Your task to perform on an android device: Clear all items from cart on target.com. Add "logitech g933" to the cart on target.com Image 0: 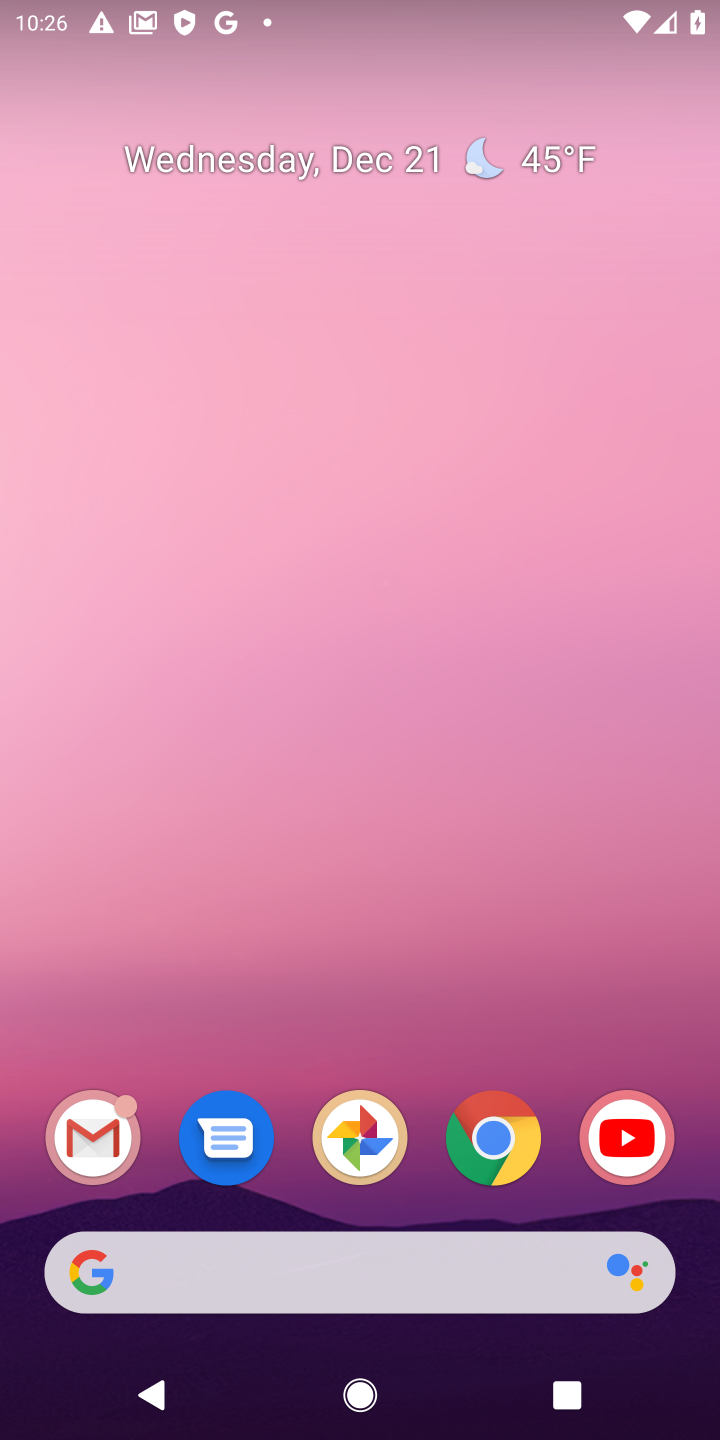
Step 0: click (489, 1151)
Your task to perform on an android device: Clear all items from cart on target.com. Add "logitech g933" to the cart on target.com Image 1: 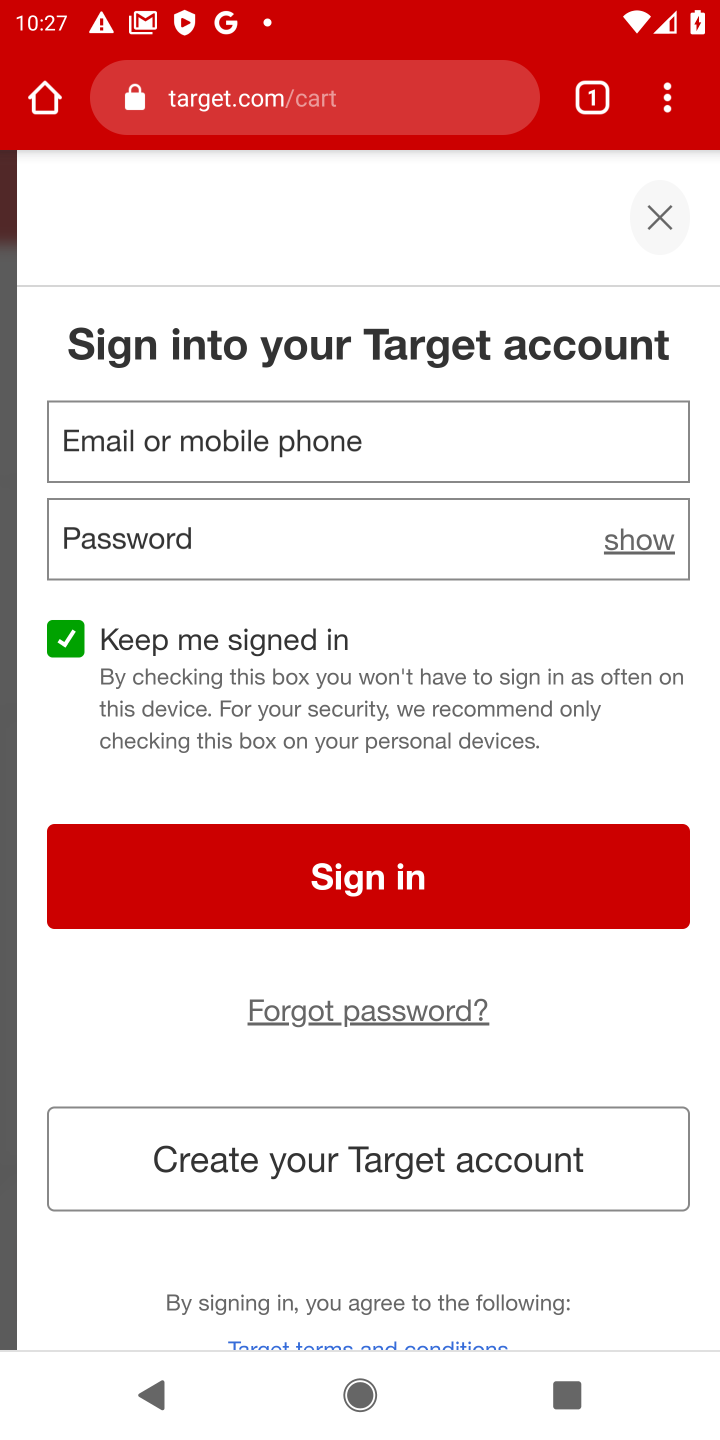
Step 1: press back button
Your task to perform on an android device: Clear all items from cart on target.com. Add "logitech g933" to the cart on target.com Image 2: 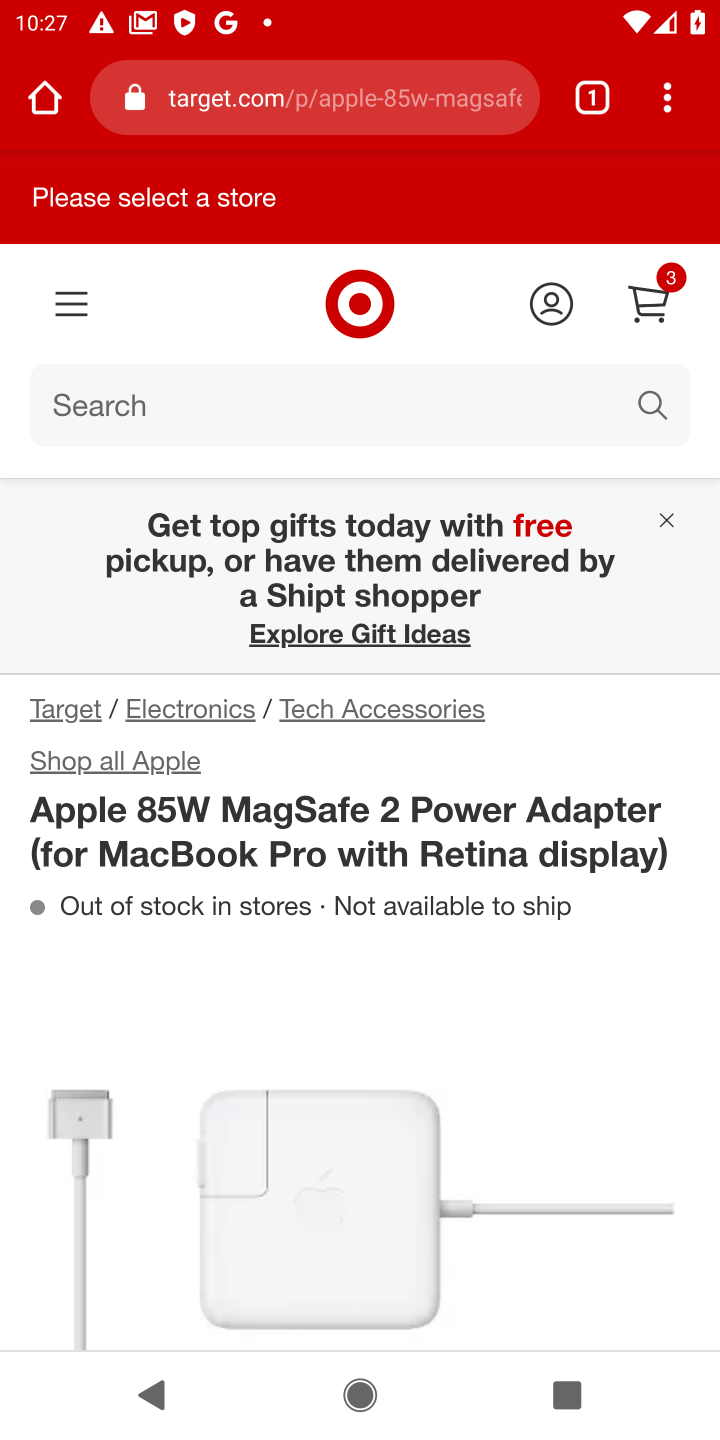
Step 2: click (645, 306)
Your task to perform on an android device: Clear all items from cart on target.com. Add "logitech g933" to the cart on target.com Image 3: 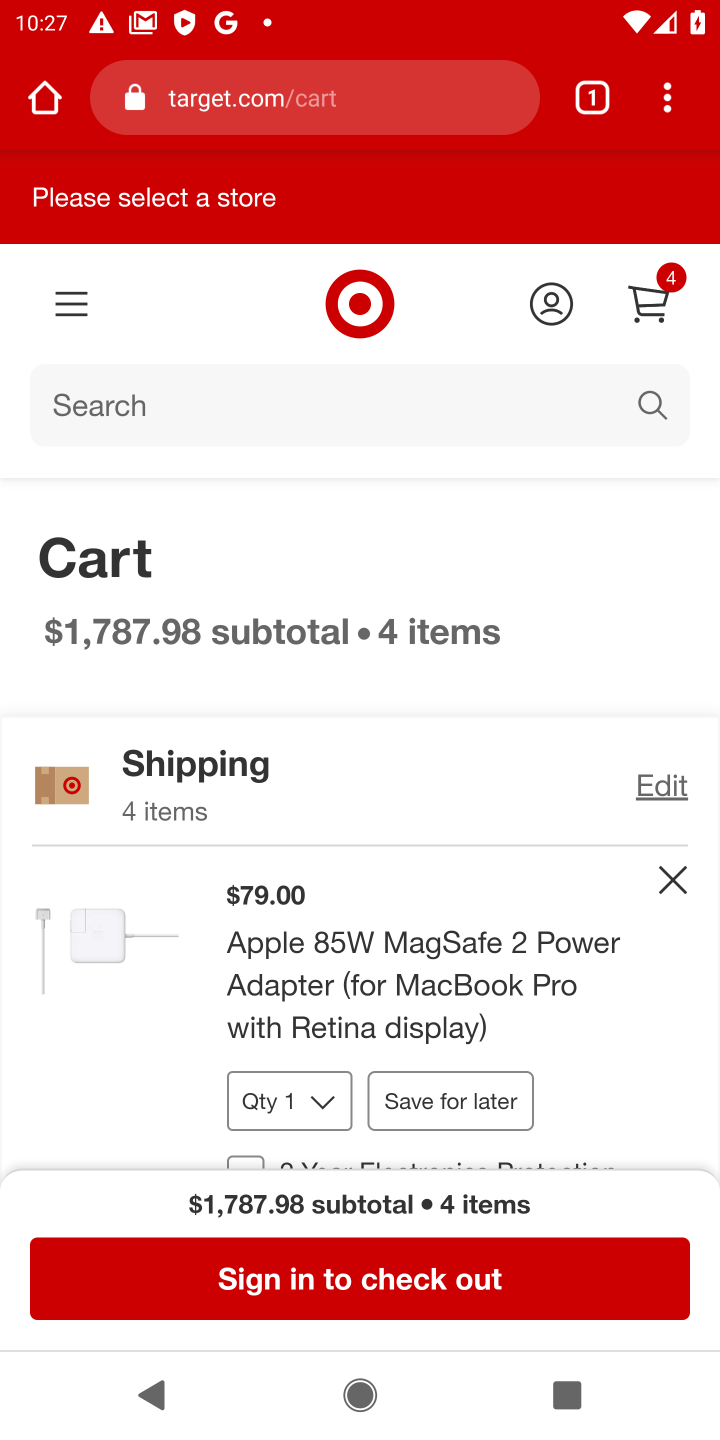
Step 3: drag from (371, 915) to (353, 691)
Your task to perform on an android device: Clear all items from cart on target.com. Add "logitech g933" to the cart on target.com Image 4: 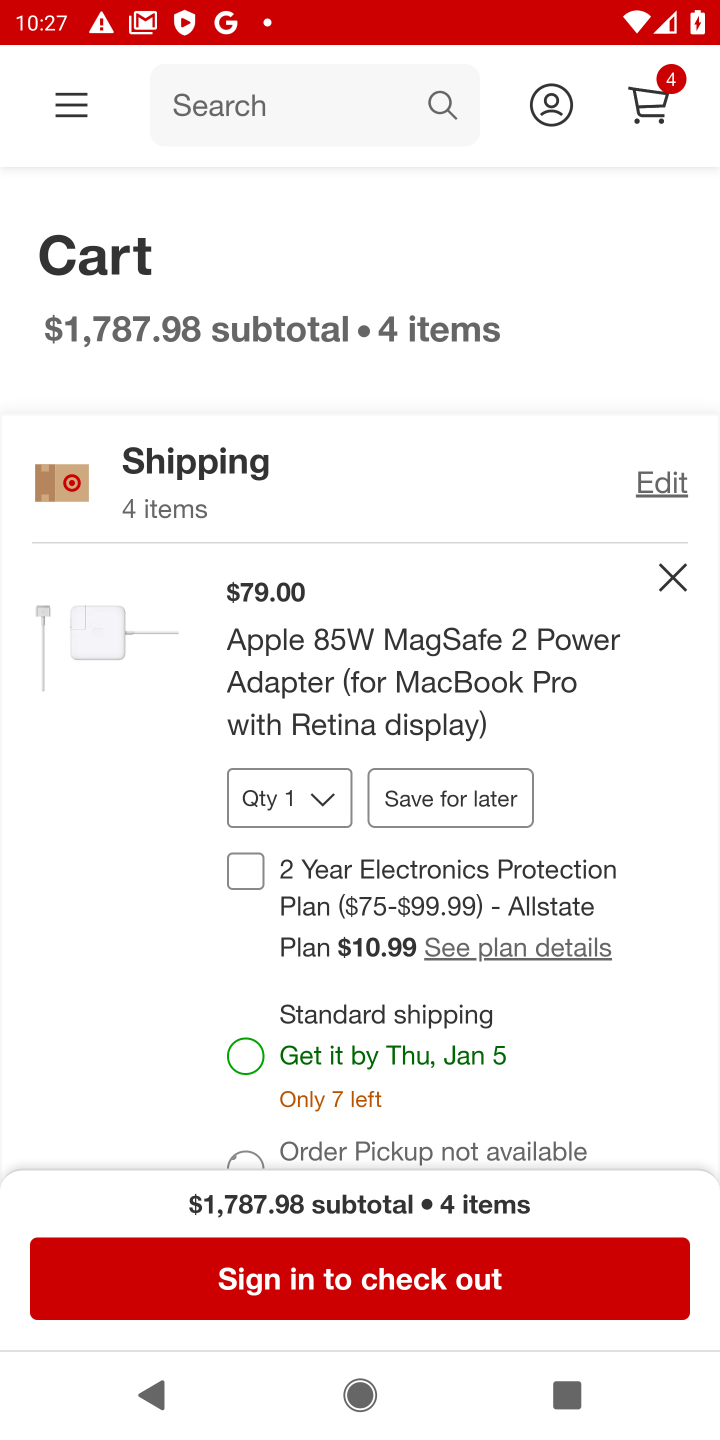
Step 4: click (669, 578)
Your task to perform on an android device: Clear all items from cart on target.com. Add "logitech g933" to the cart on target.com Image 5: 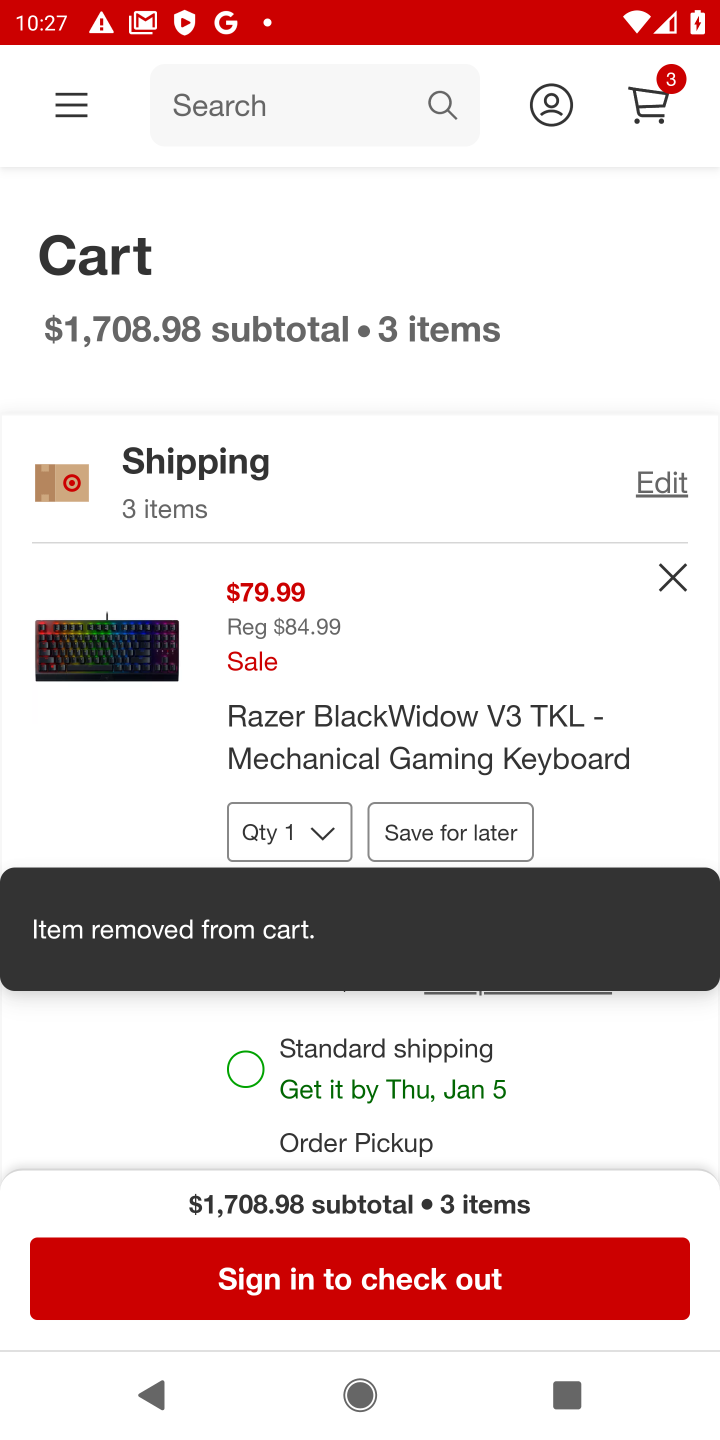
Step 5: click (669, 582)
Your task to perform on an android device: Clear all items from cart on target.com. Add "logitech g933" to the cart on target.com Image 6: 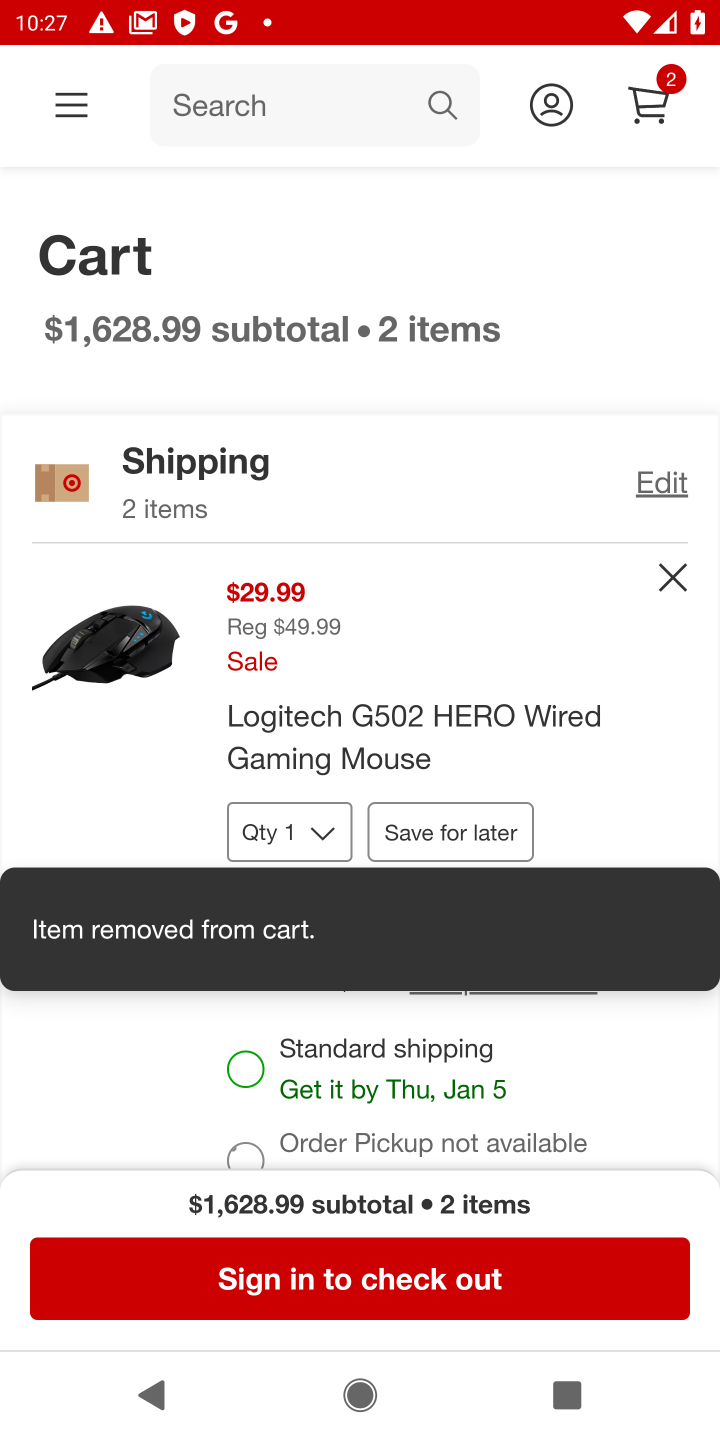
Step 6: click (669, 582)
Your task to perform on an android device: Clear all items from cart on target.com. Add "logitech g933" to the cart on target.com Image 7: 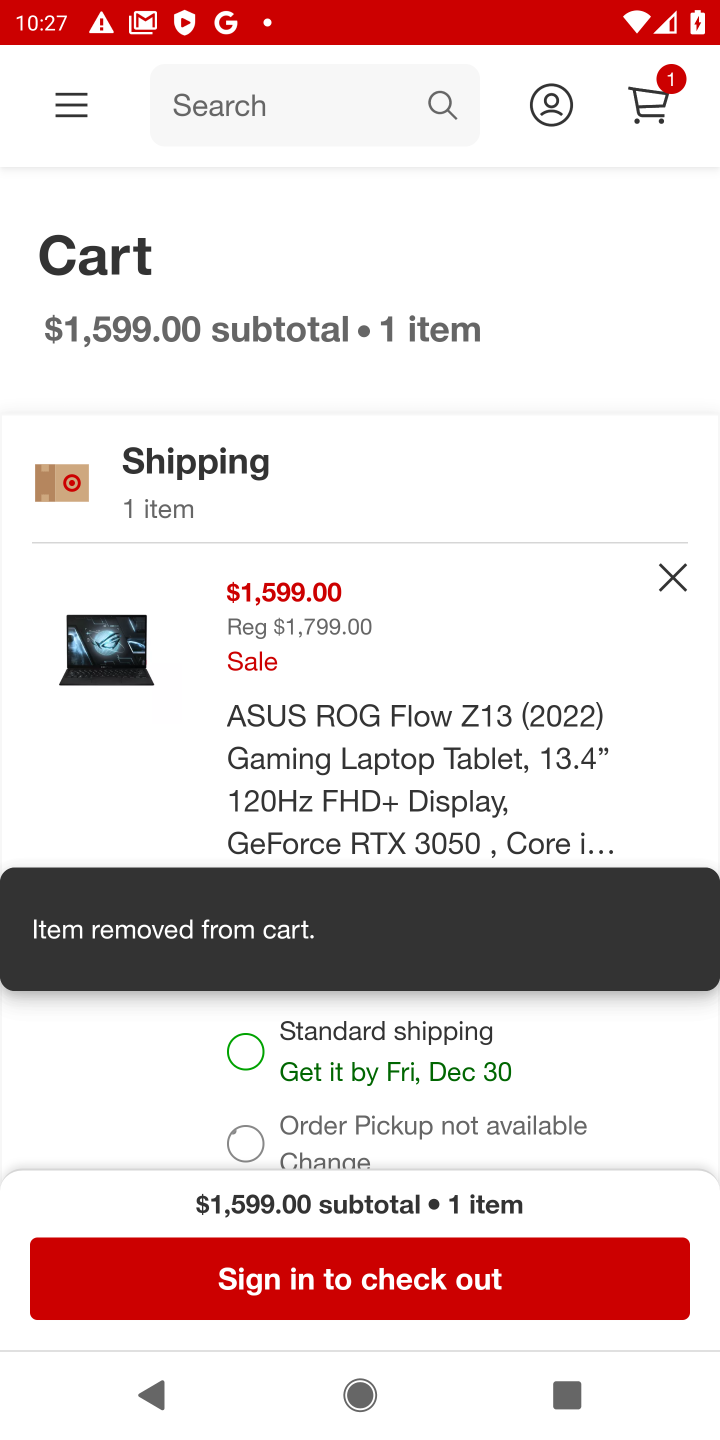
Step 7: click (669, 582)
Your task to perform on an android device: Clear all items from cart on target.com. Add "logitech g933" to the cart on target.com Image 8: 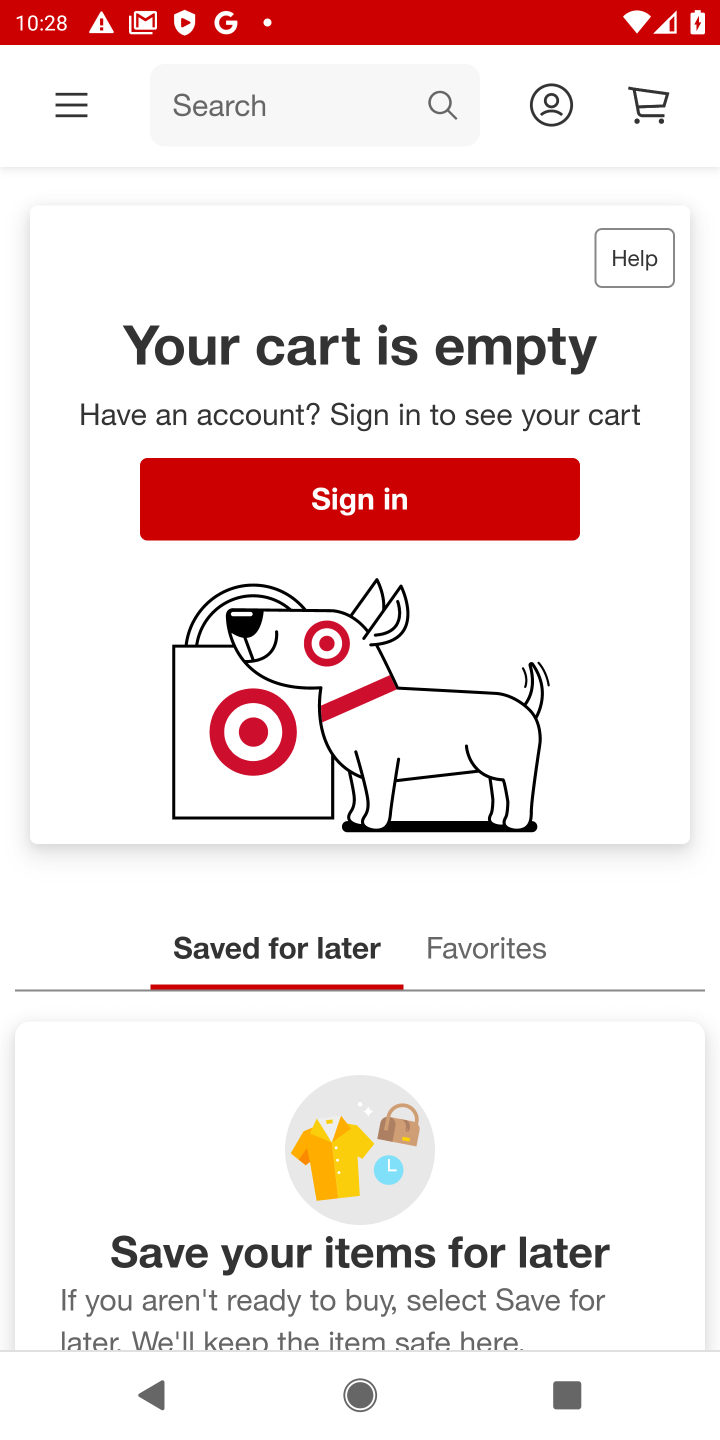
Step 8: click (257, 109)
Your task to perform on an android device: Clear all items from cart on target.com. Add "logitech g933" to the cart on target.com Image 9: 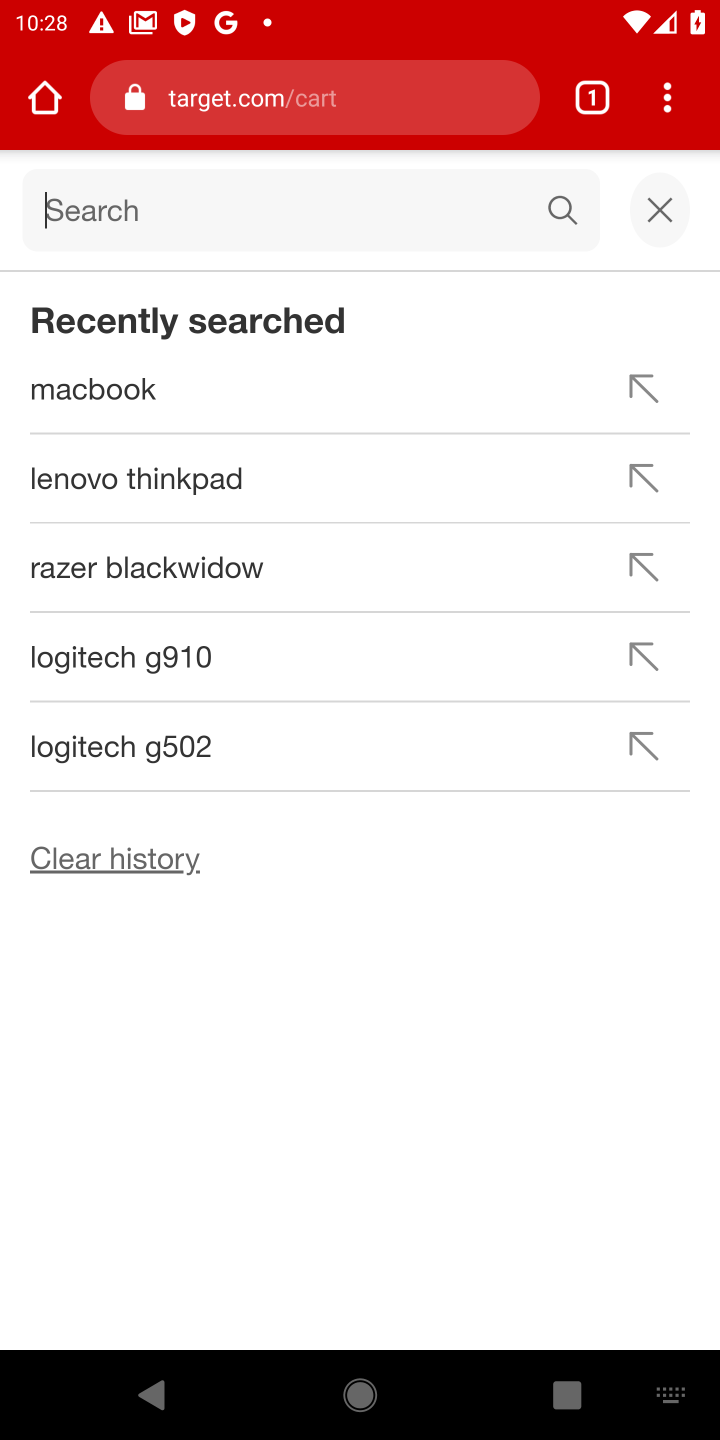
Step 9: type "logitech g933"
Your task to perform on an android device: Clear all items from cart on target.com. Add "logitech g933" to the cart on target.com Image 10: 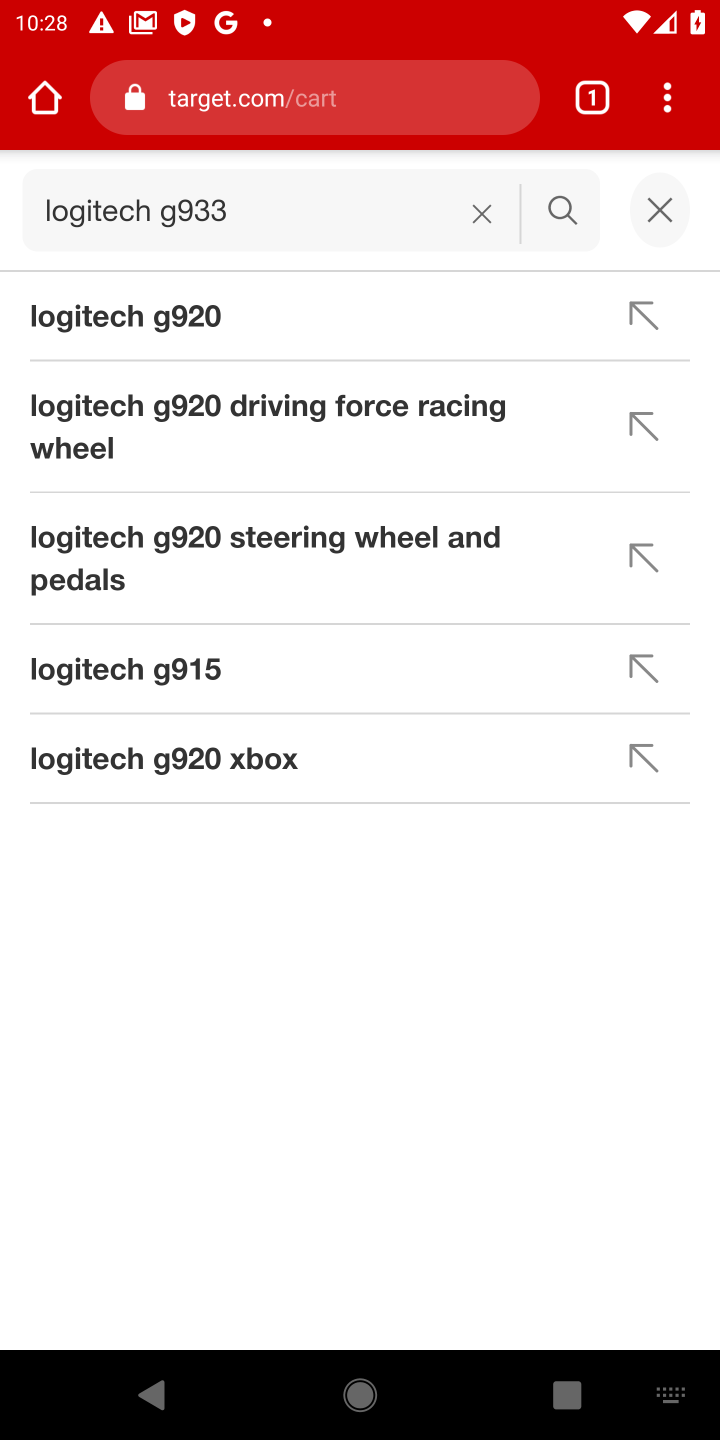
Step 10: click (566, 217)
Your task to perform on an android device: Clear all items from cart on target.com. Add "logitech g933" to the cart on target.com Image 11: 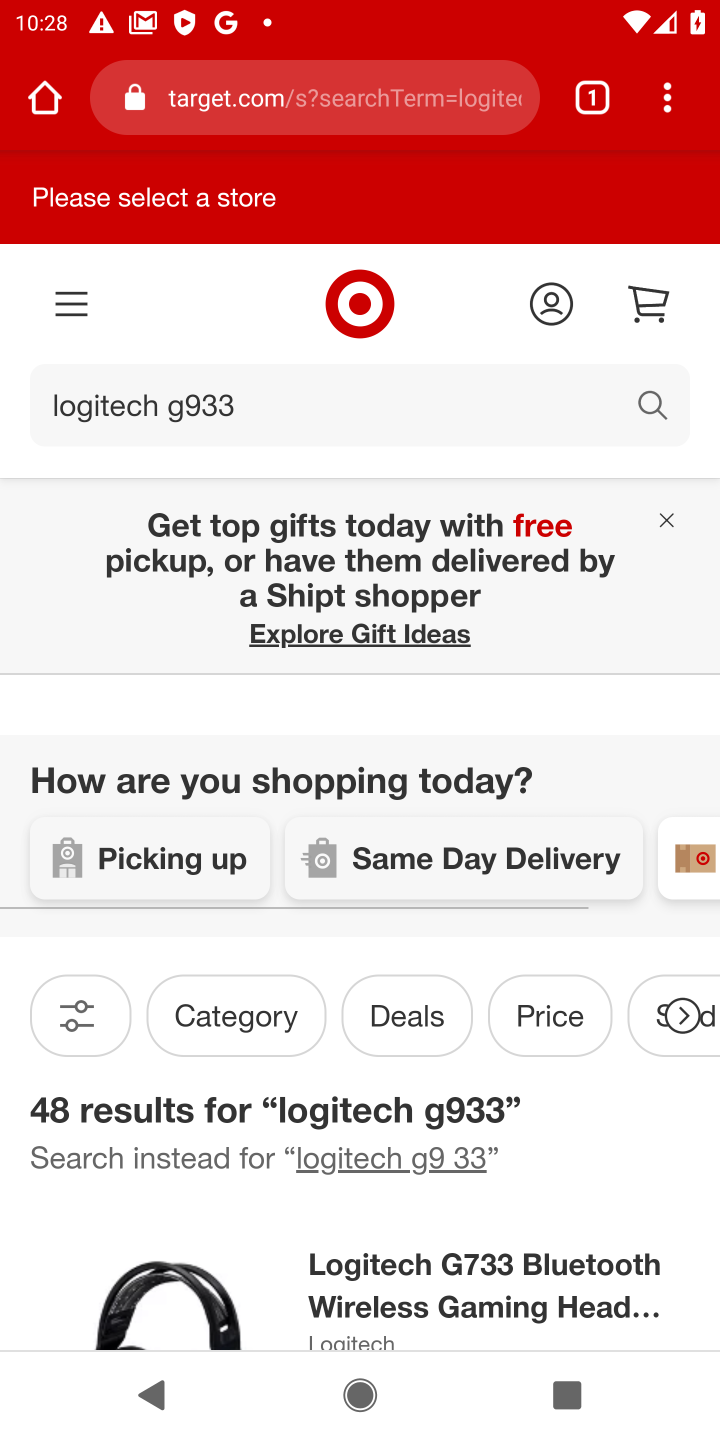
Step 11: task complete